Your task to perform on an android device: Go to privacy settings Image 0: 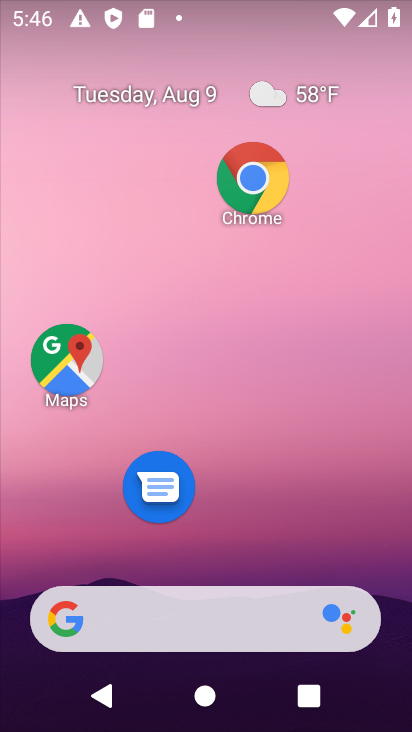
Step 0: drag from (171, 473) to (94, 111)
Your task to perform on an android device: Go to privacy settings Image 1: 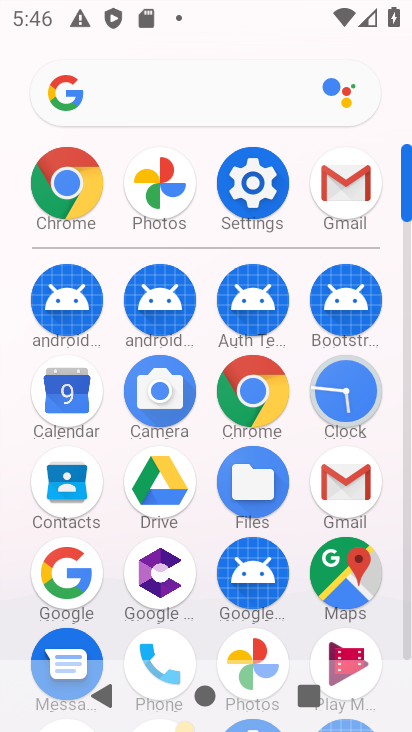
Step 1: click (275, 185)
Your task to perform on an android device: Go to privacy settings Image 2: 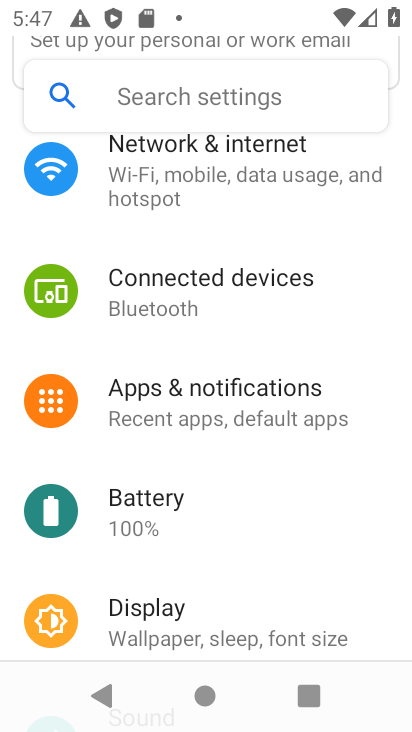
Step 2: drag from (188, 476) to (194, 39)
Your task to perform on an android device: Go to privacy settings Image 3: 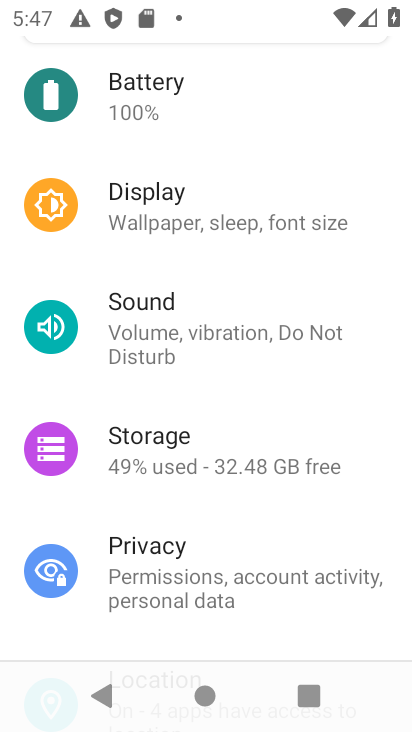
Step 3: click (173, 556)
Your task to perform on an android device: Go to privacy settings Image 4: 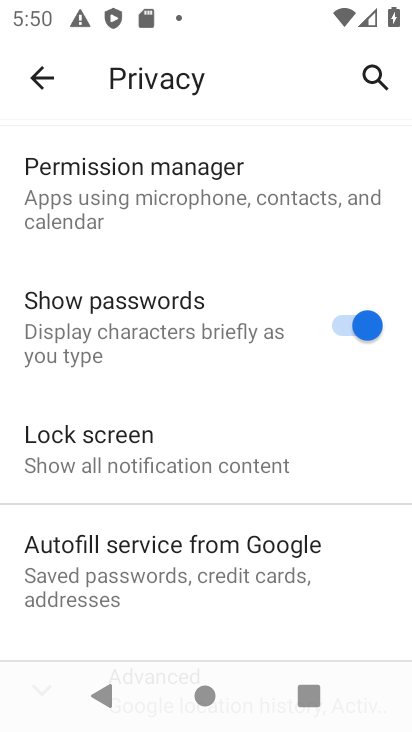
Step 4: task complete